Your task to perform on an android device: Open accessibility settings Image 0: 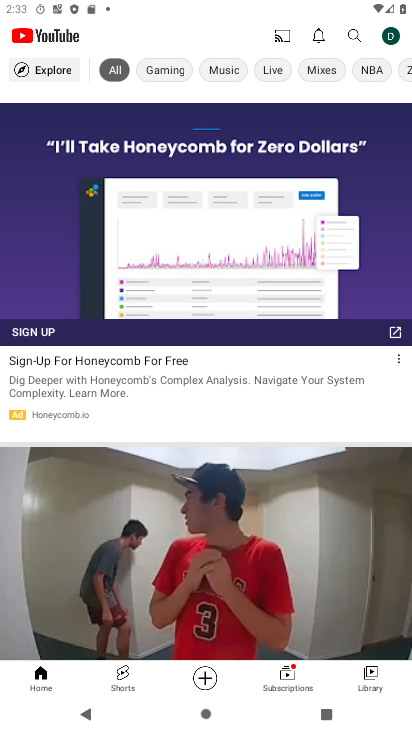
Step 0: press home button
Your task to perform on an android device: Open accessibility settings Image 1: 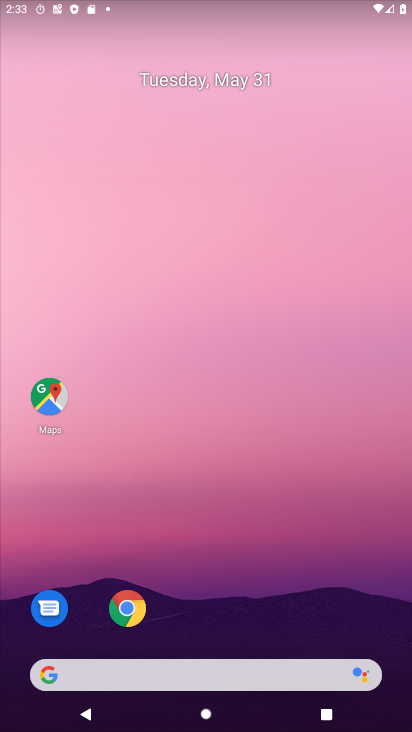
Step 1: drag from (217, 649) to (217, 358)
Your task to perform on an android device: Open accessibility settings Image 2: 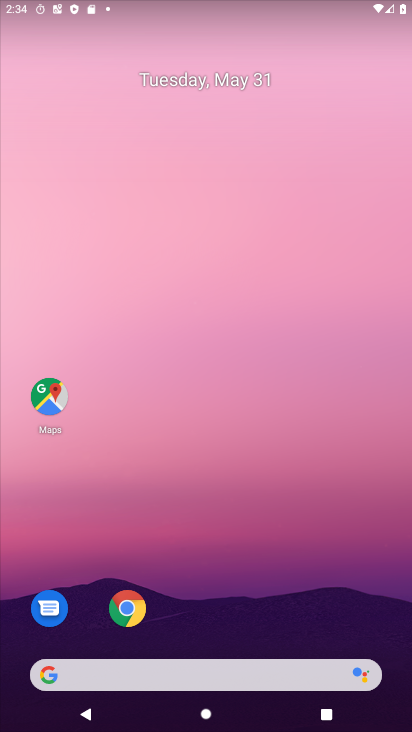
Step 2: drag from (187, 634) to (201, 430)
Your task to perform on an android device: Open accessibility settings Image 3: 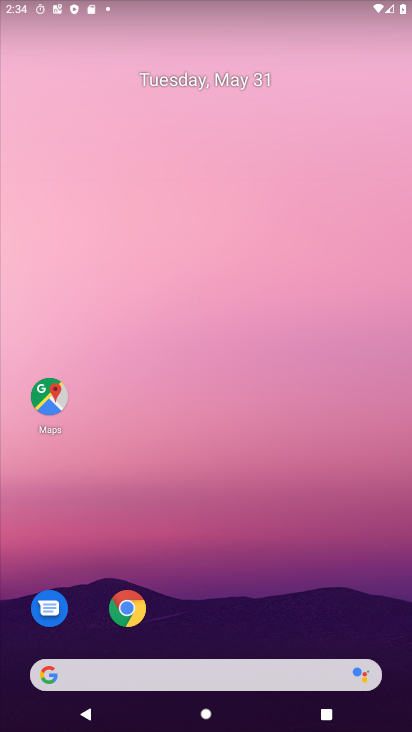
Step 3: drag from (198, 579) to (318, 13)
Your task to perform on an android device: Open accessibility settings Image 4: 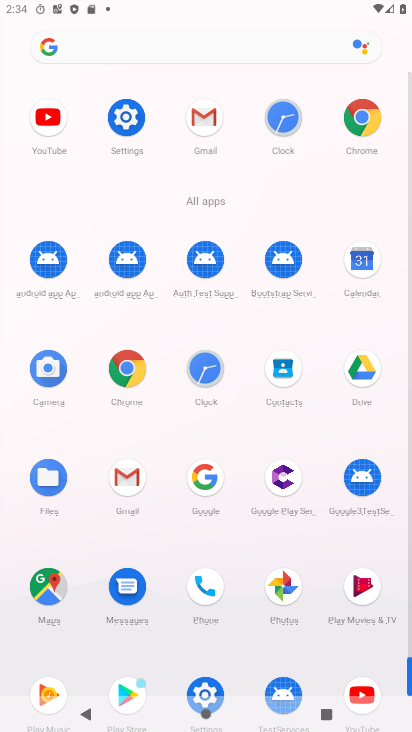
Step 4: click (123, 130)
Your task to perform on an android device: Open accessibility settings Image 5: 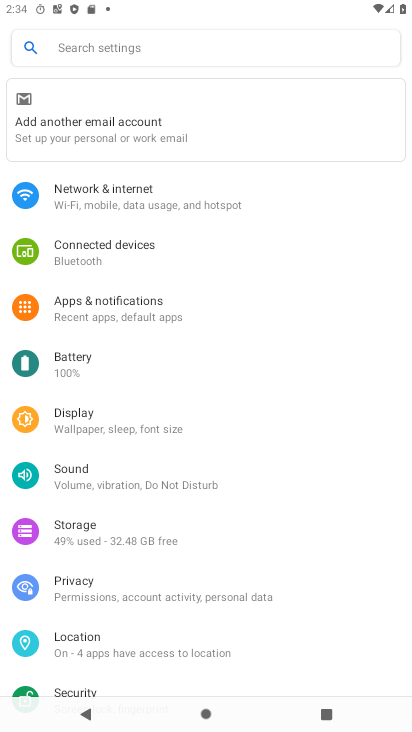
Step 5: drag from (161, 418) to (179, 365)
Your task to perform on an android device: Open accessibility settings Image 6: 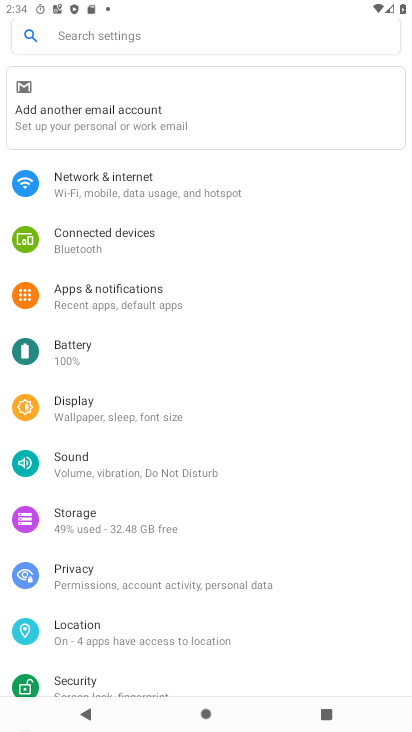
Step 6: drag from (137, 612) to (240, 30)
Your task to perform on an android device: Open accessibility settings Image 7: 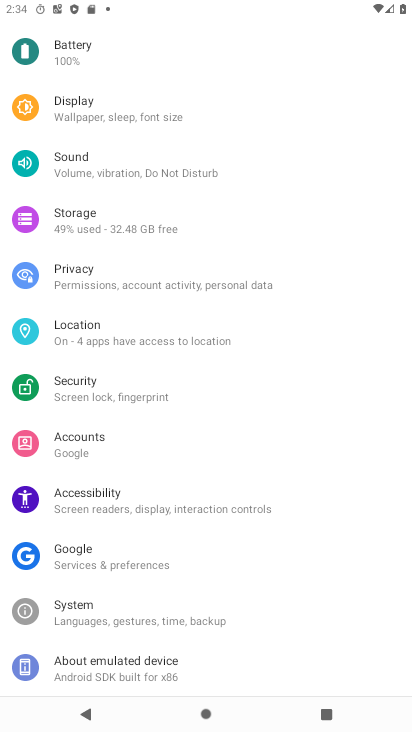
Step 7: click (114, 505)
Your task to perform on an android device: Open accessibility settings Image 8: 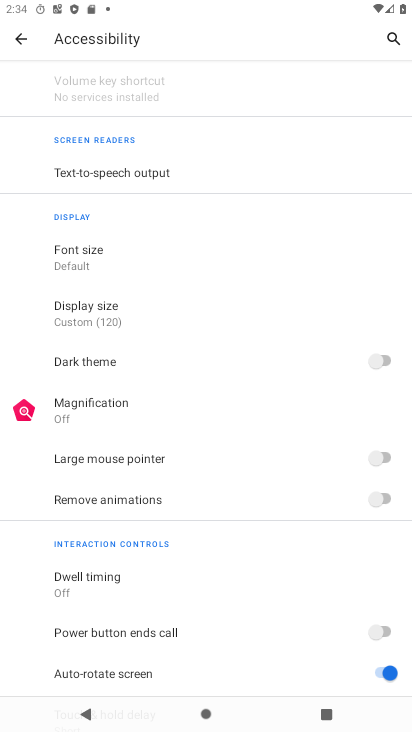
Step 8: task complete